Your task to perform on an android device: install app "Google Play services" Image 0: 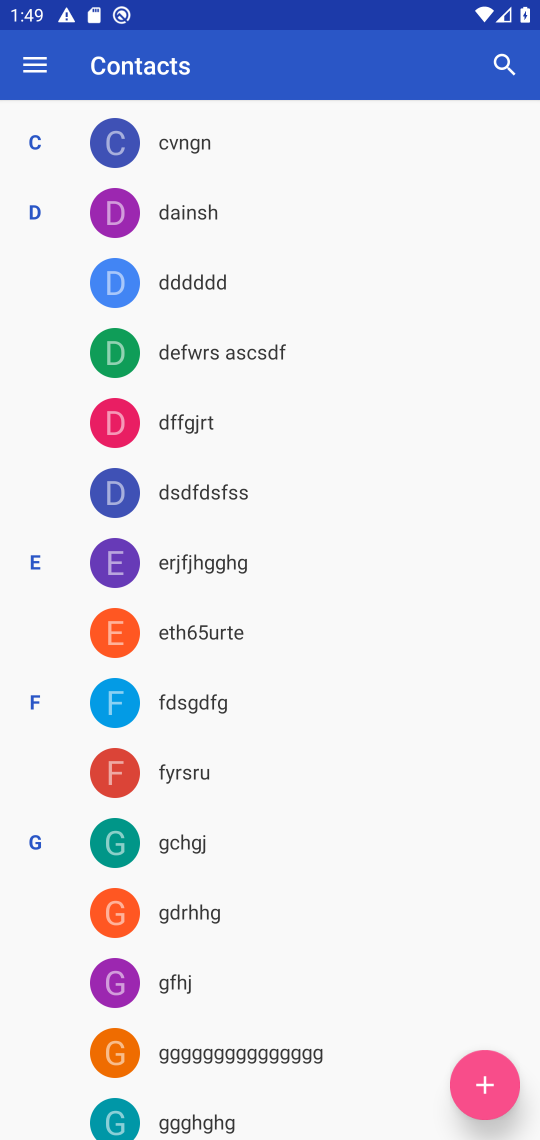
Step 0: press home button
Your task to perform on an android device: install app "Google Play services" Image 1: 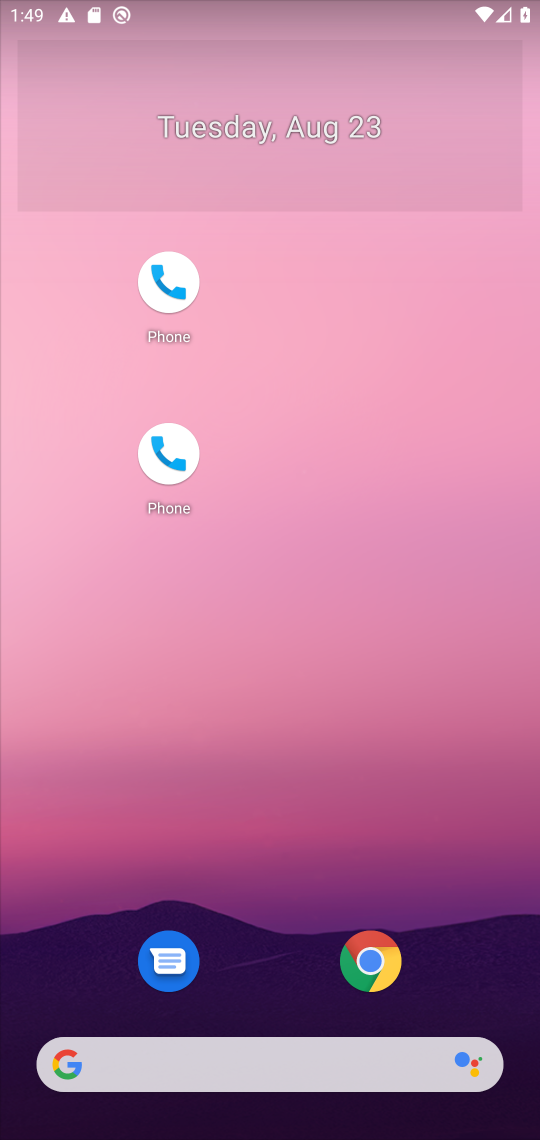
Step 1: drag from (275, 991) to (304, 0)
Your task to perform on an android device: install app "Google Play services" Image 2: 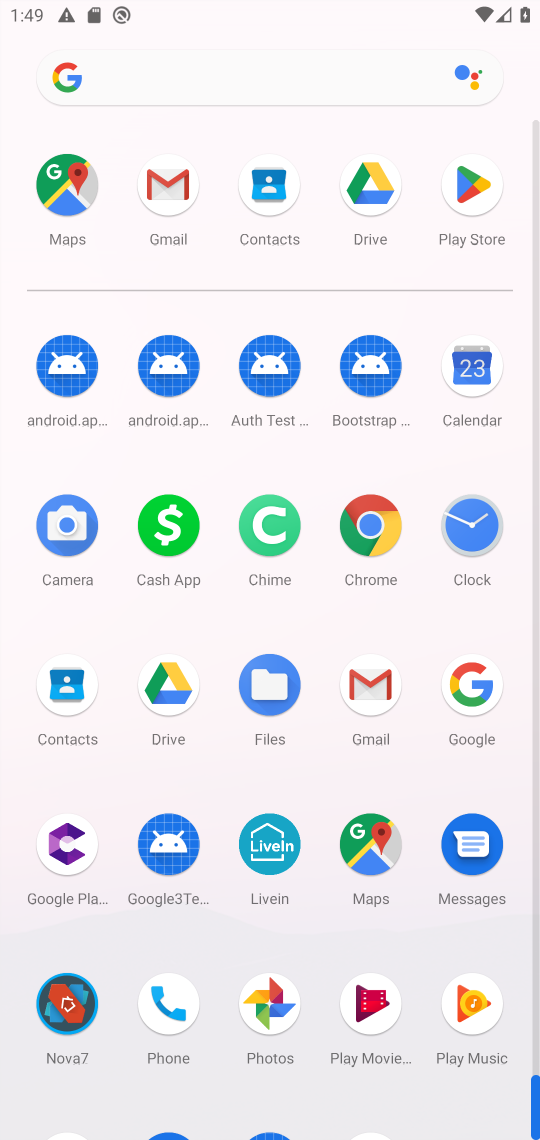
Step 2: click (445, 165)
Your task to perform on an android device: install app "Google Play services" Image 3: 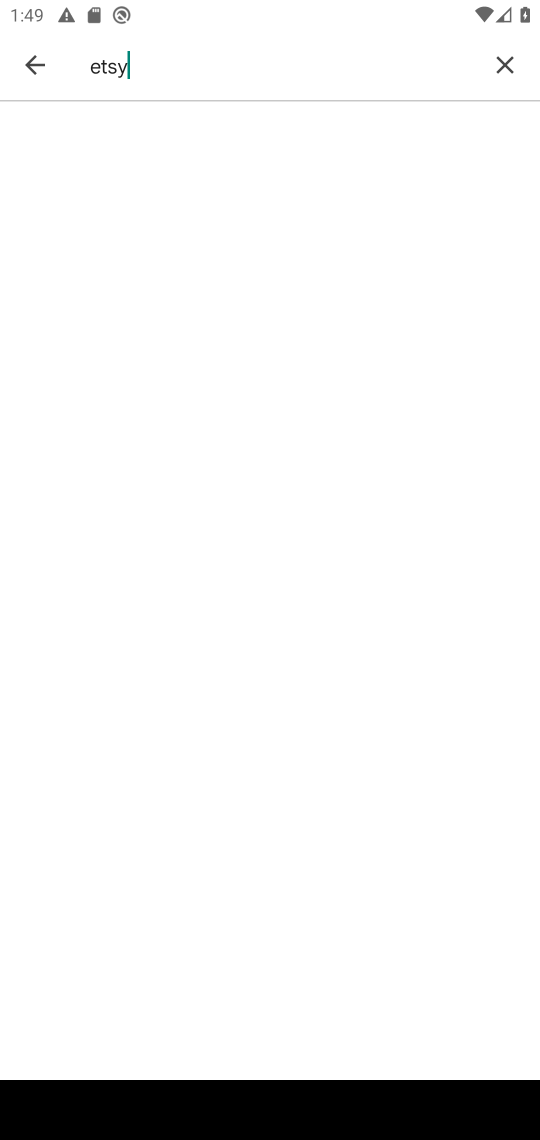
Step 3: click (510, 78)
Your task to perform on an android device: install app "Google Play services" Image 4: 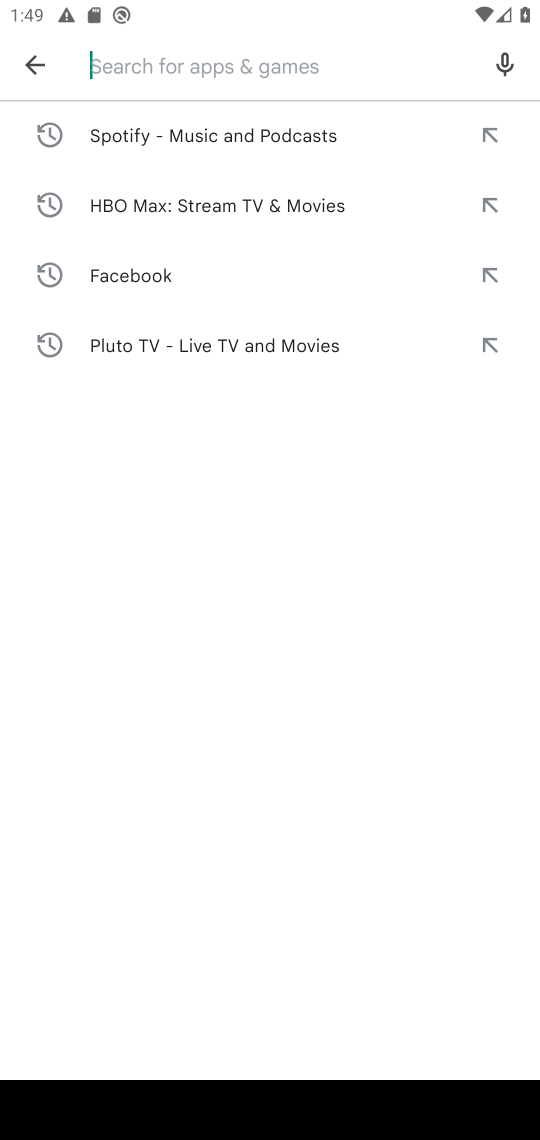
Step 4: type "google play"
Your task to perform on an android device: install app "Google Play services" Image 5: 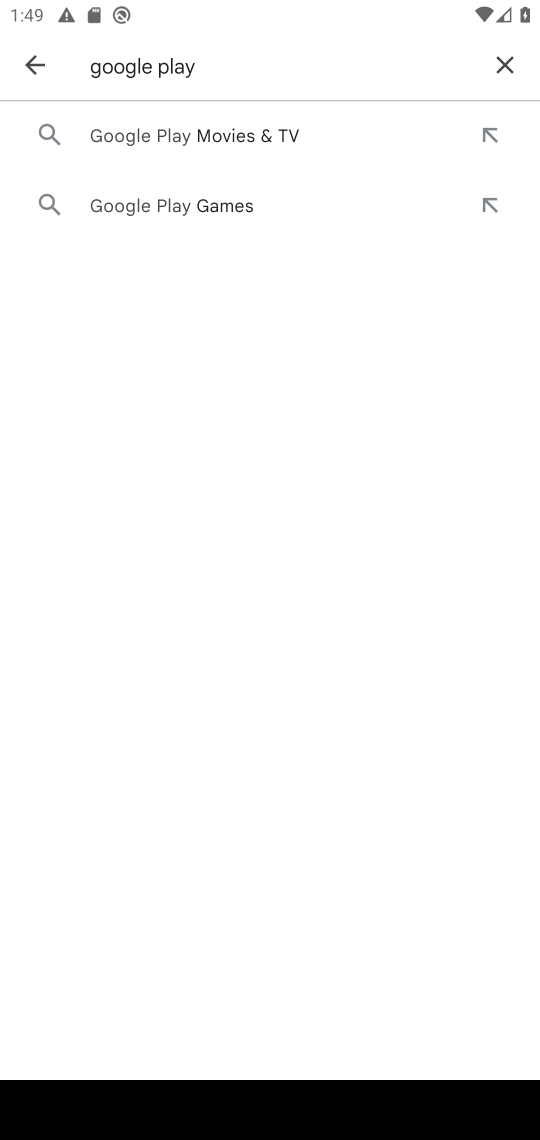
Step 5: click (302, 114)
Your task to perform on an android device: install app "Google Play services" Image 6: 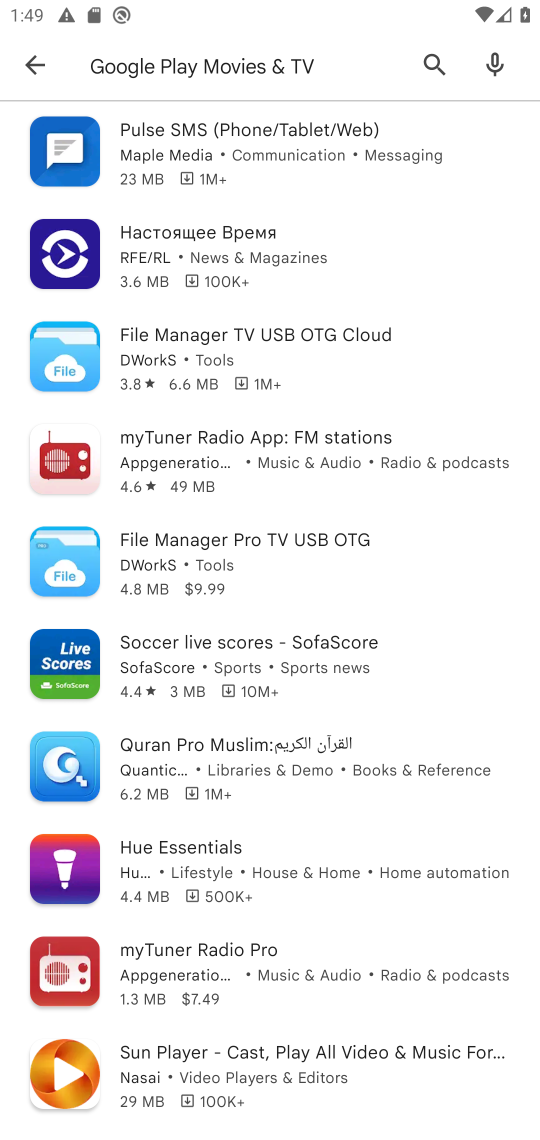
Step 6: task complete